Your task to perform on an android device: visit the assistant section in the google photos Image 0: 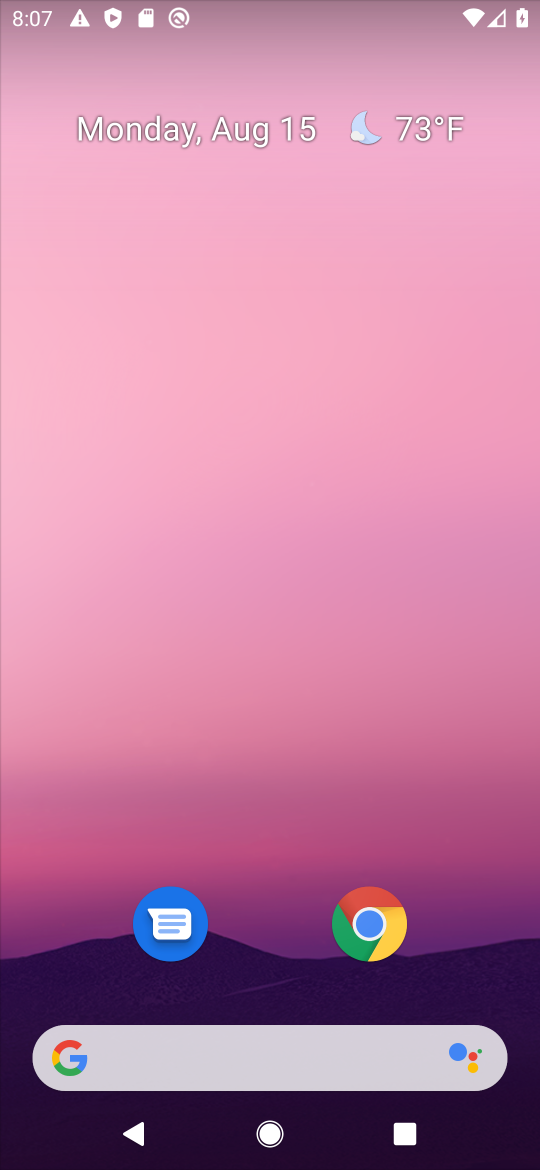
Step 0: press home button
Your task to perform on an android device: visit the assistant section in the google photos Image 1: 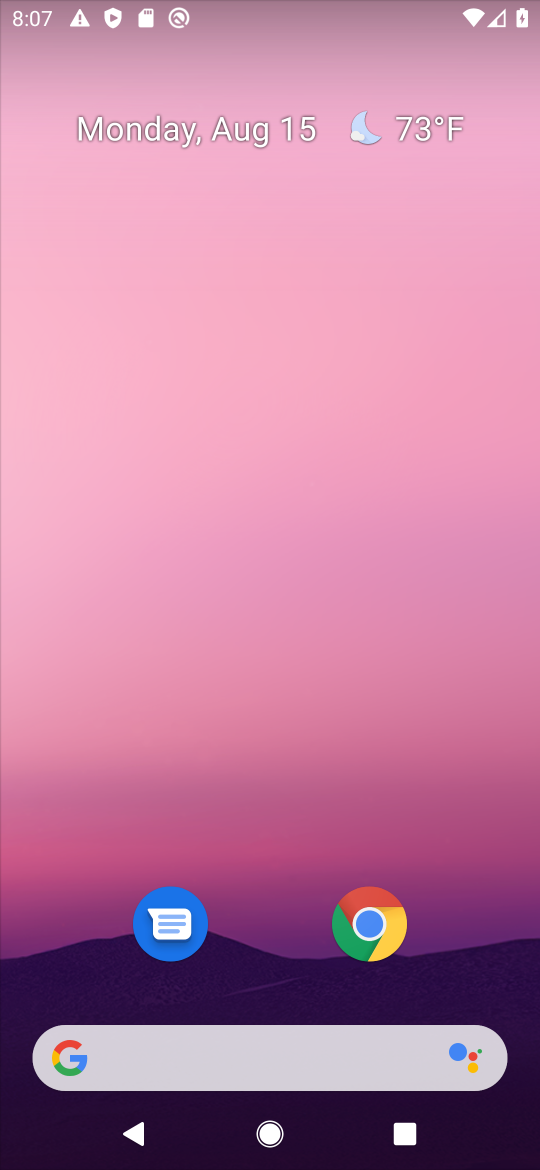
Step 1: drag from (493, 975) to (414, 74)
Your task to perform on an android device: visit the assistant section in the google photos Image 2: 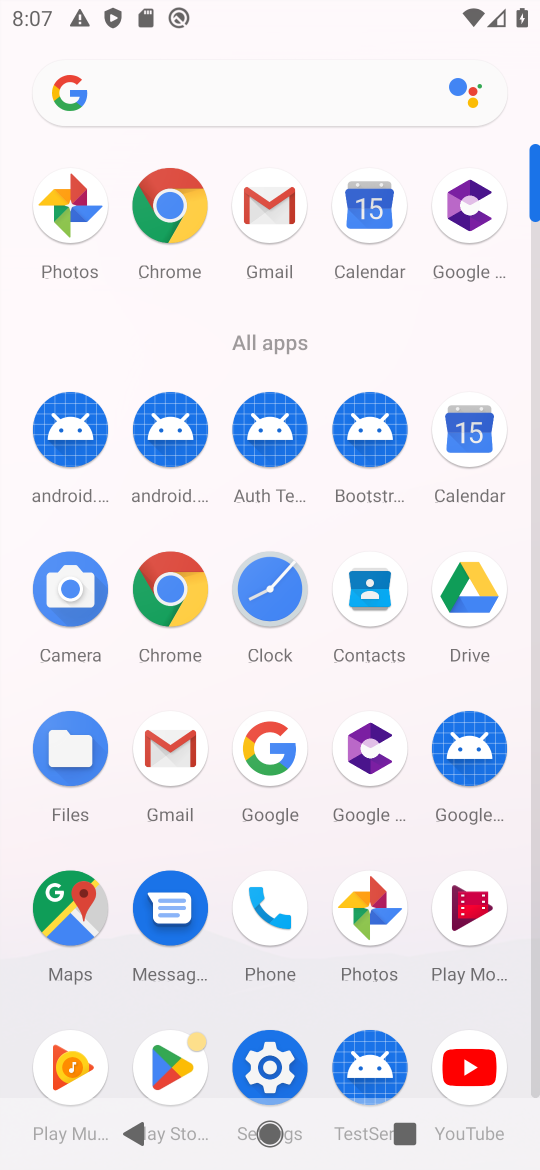
Step 2: click (369, 911)
Your task to perform on an android device: visit the assistant section in the google photos Image 3: 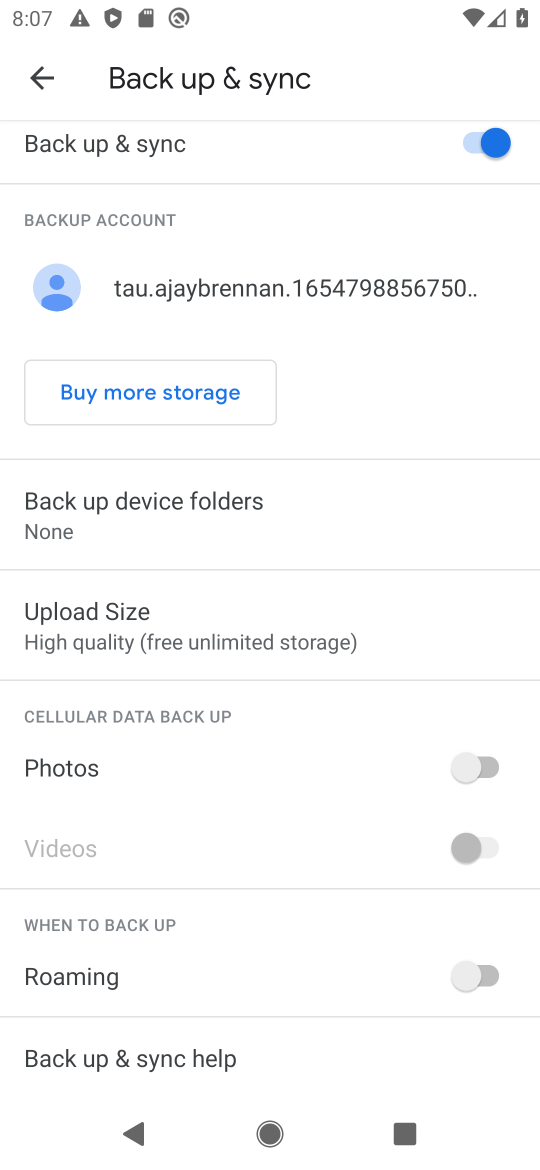
Step 3: press back button
Your task to perform on an android device: visit the assistant section in the google photos Image 4: 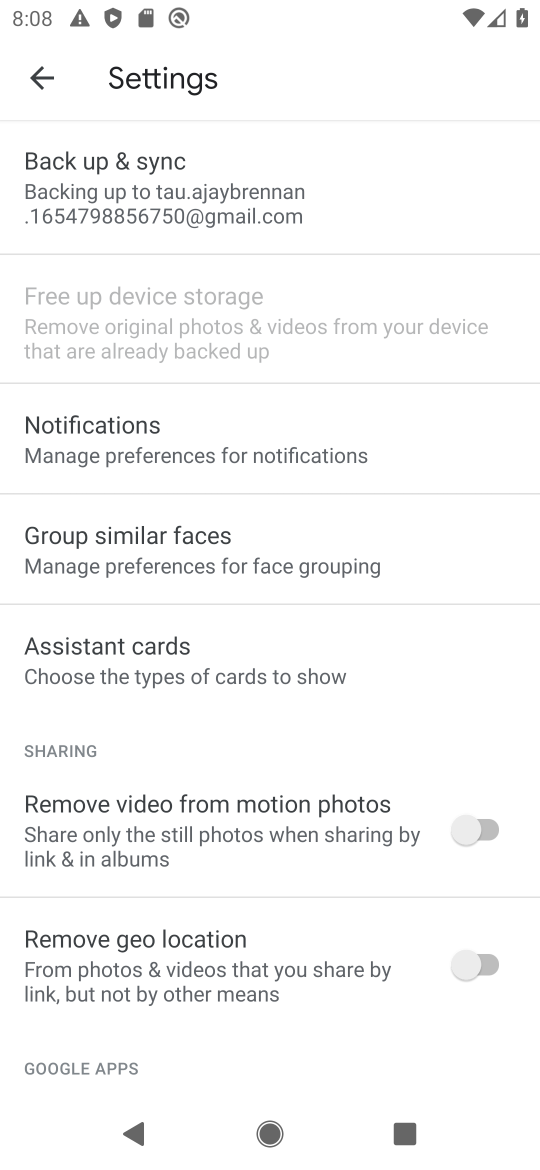
Step 4: press back button
Your task to perform on an android device: visit the assistant section in the google photos Image 5: 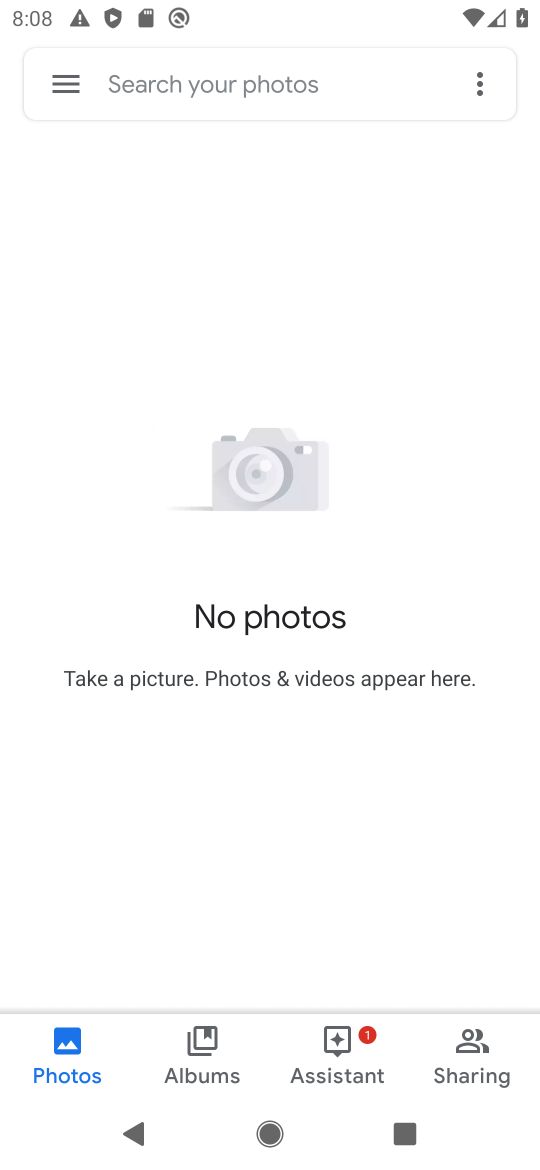
Step 5: click (321, 1044)
Your task to perform on an android device: visit the assistant section in the google photos Image 6: 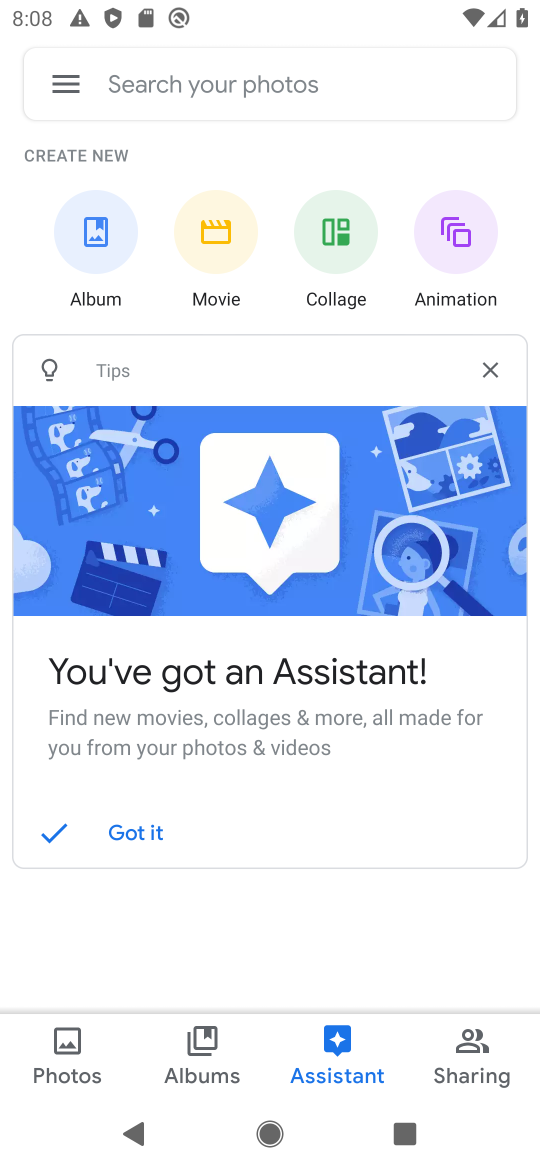
Step 6: task complete